Your task to perform on an android device: Open calendar and show me the third week of next month Image 0: 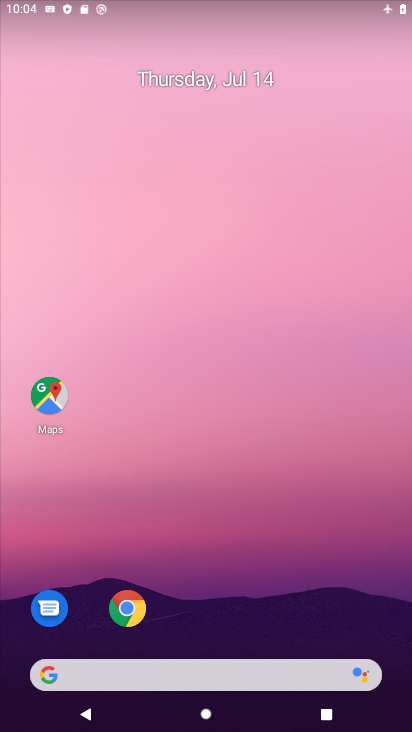
Step 0: drag from (223, 531) to (194, 26)
Your task to perform on an android device: Open calendar and show me the third week of next month Image 1: 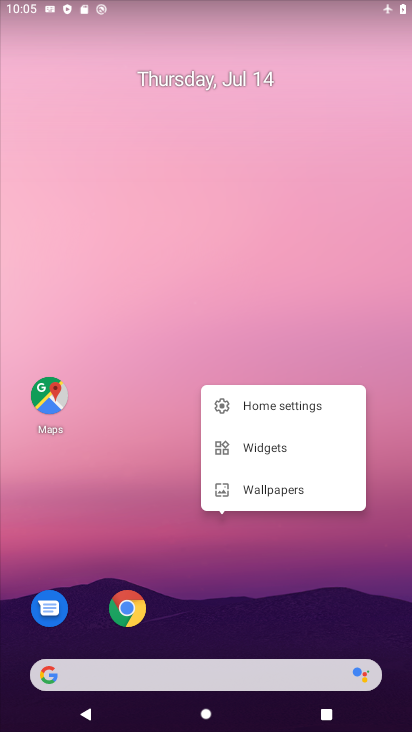
Step 1: click (198, 600)
Your task to perform on an android device: Open calendar and show me the third week of next month Image 2: 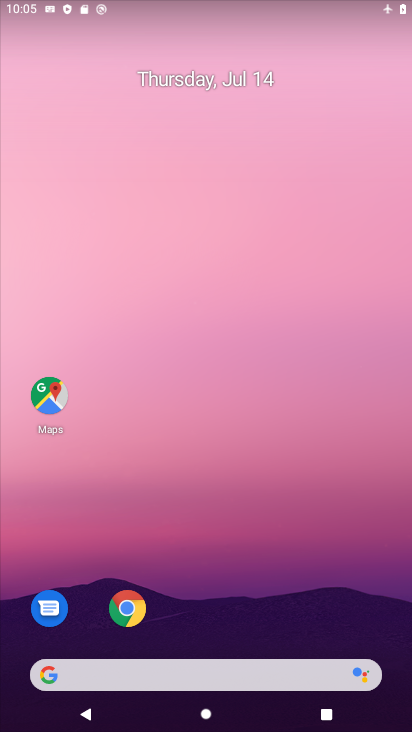
Step 2: drag from (195, 611) to (240, 0)
Your task to perform on an android device: Open calendar and show me the third week of next month Image 3: 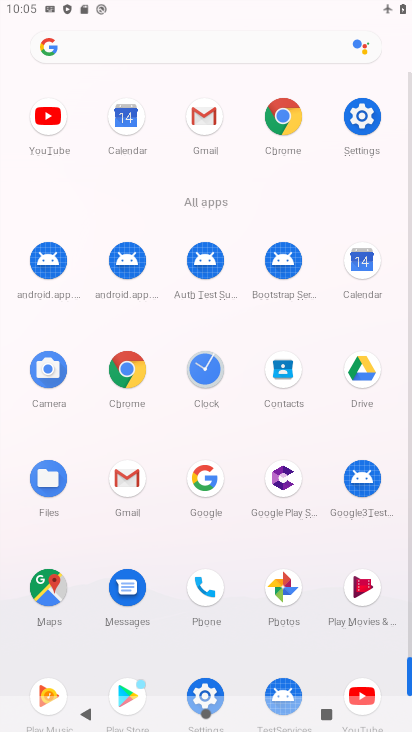
Step 3: click (364, 282)
Your task to perform on an android device: Open calendar and show me the third week of next month Image 4: 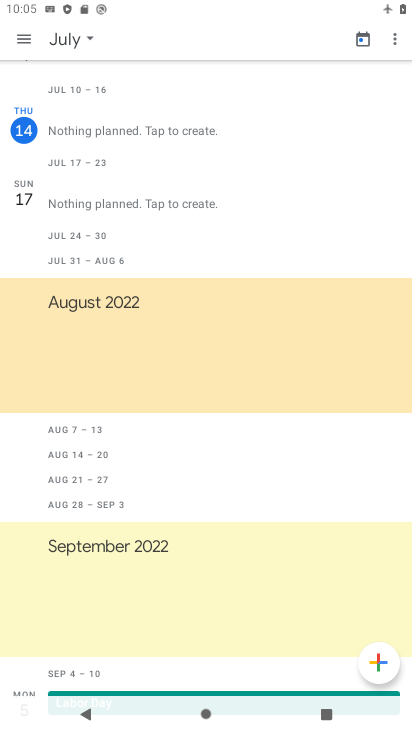
Step 4: click (31, 44)
Your task to perform on an android device: Open calendar and show me the third week of next month Image 5: 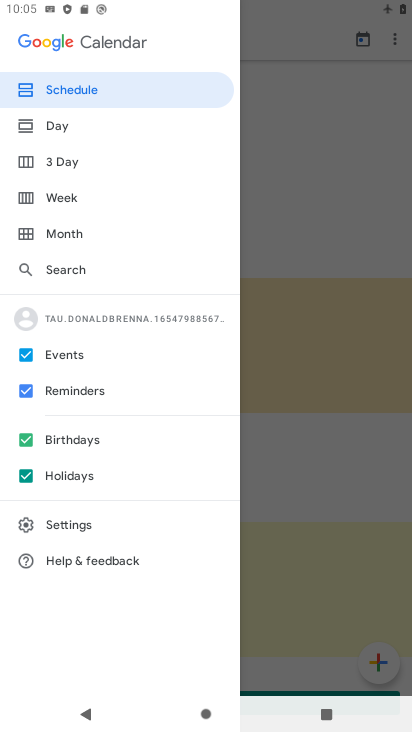
Step 5: click (73, 198)
Your task to perform on an android device: Open calendar and show me the third week of next month Image 6: 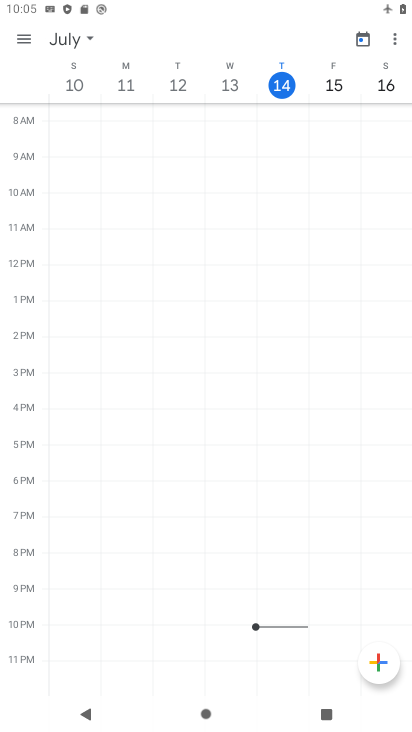
Step 6: task complete